Your task to perform on an android device: toggle wifi Image 0: 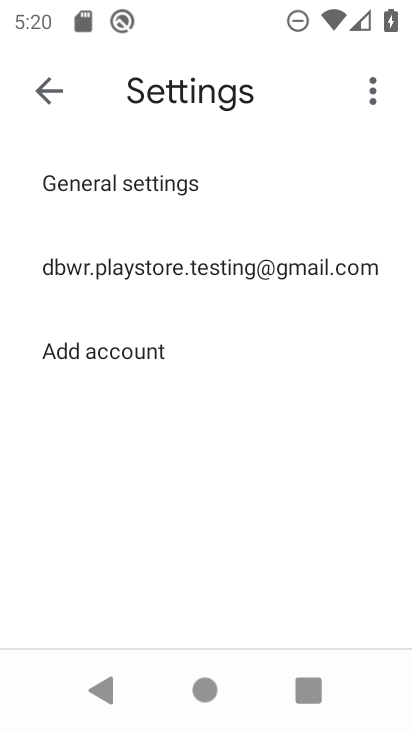
Step 0: press home button
Your task to perform on an android device: toggle wifi Image 1: 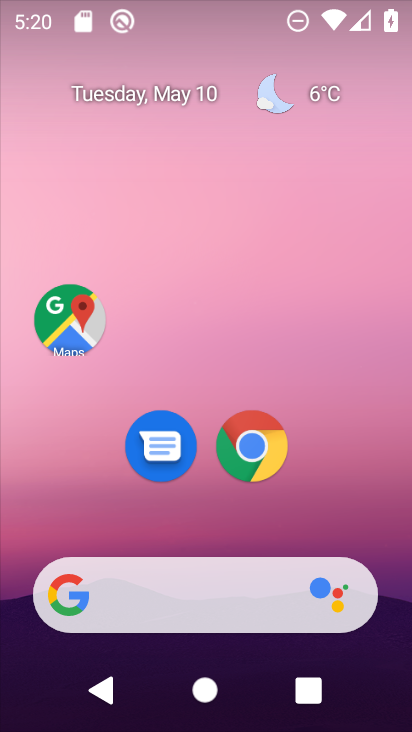
Step 1: drag from (245, 486) to (215, 108)
Your task to perform on an android device: toggle wifi Image 2: 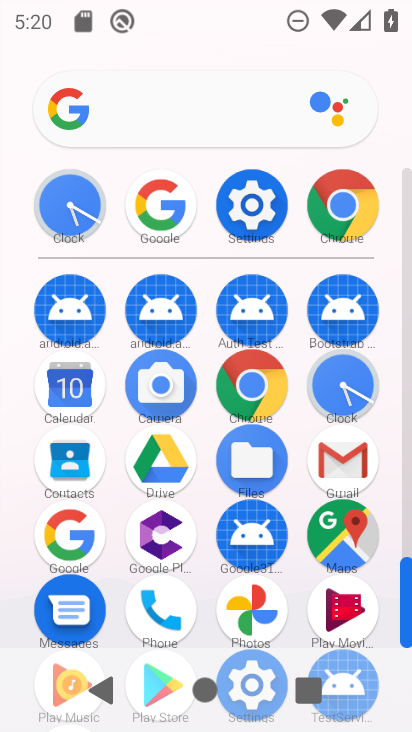
Step 2: click (264, 212)
Your task to perform on an android device: toggle wifi Image 3: 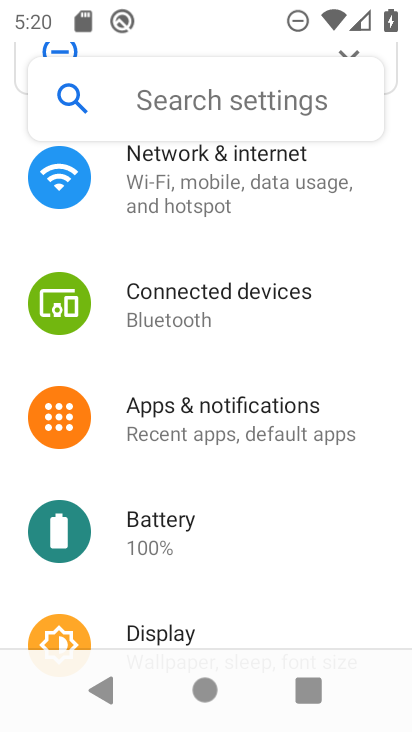
Step 3: click (177, 210)
Your task to perform on an android device: toggle wifi Image 4: 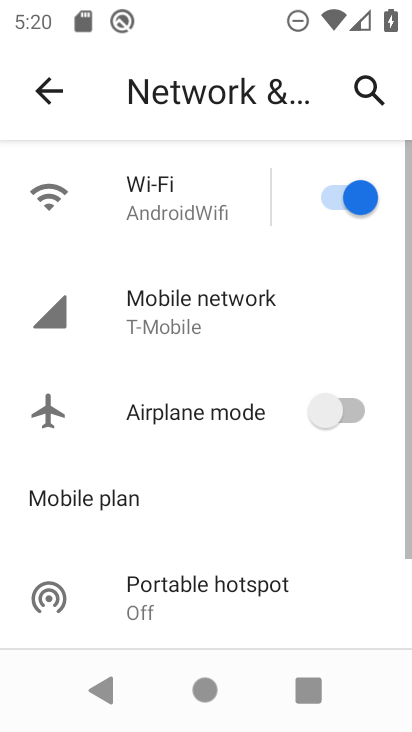
Step 4: click (356, 193)
Your task to perform on an android device: toggle wifi Image 5: 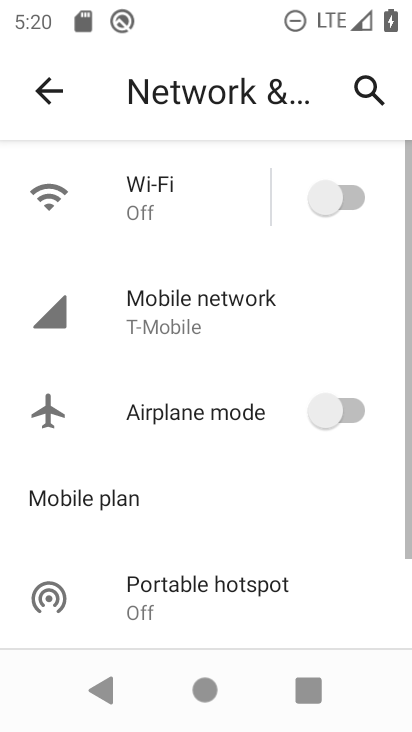
Step 5: task complete